Your task to perform on an android device: turn off picture-in-picture Image 0: 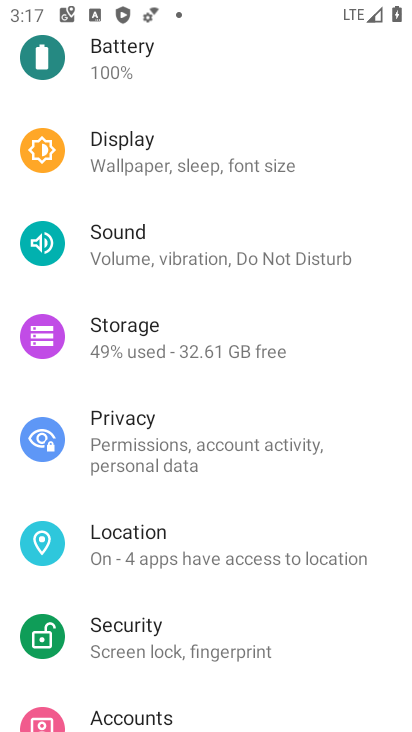
Step 0: press back button
Your task to perform on an android device: turn off picture-in-picture Image 1: 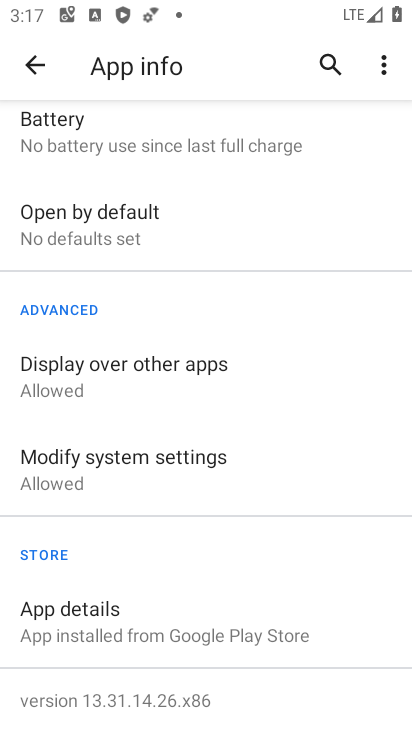
Step 1: press back button
Your task to perform on an android device: turn off picture-in-picture Image 2: 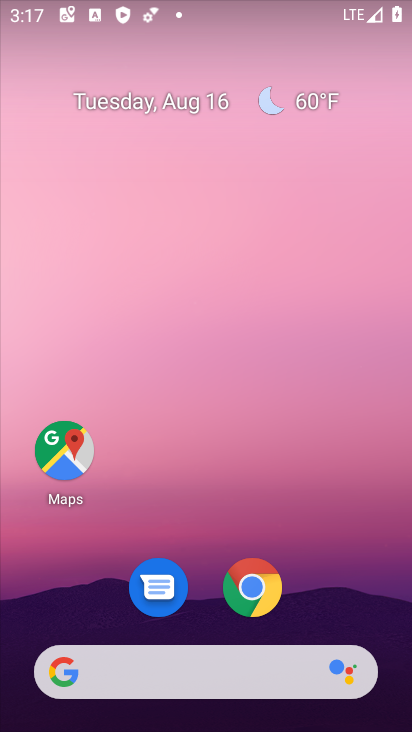
Step 2: drag from (74, 613) to (180, 105)
Your task to perform on an android device: turn off picture-in-picture Image 3: 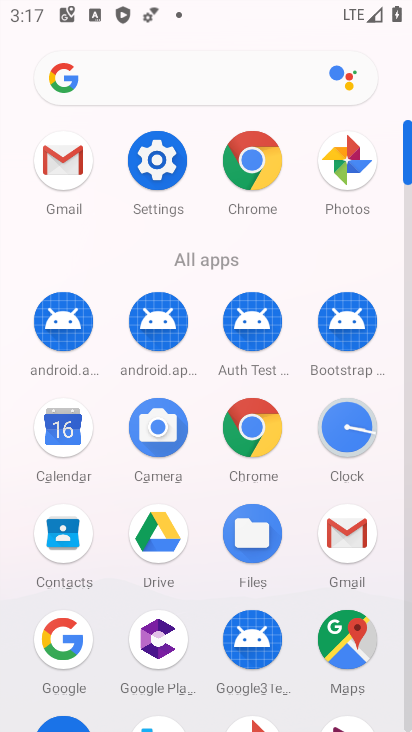
Step 3: click (158, 147)
Your task to perform on an android device: turn off picture-in-picture Image 4: 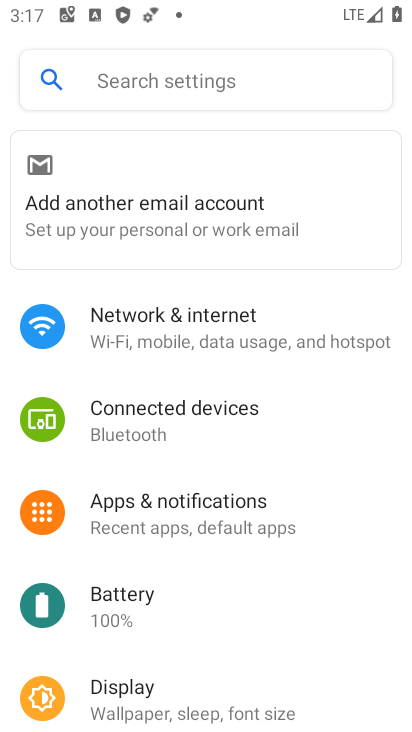
Step 4: drag from (177, 666) to (271, 197)
Your task to perform on an android device: turn off picture-in-picture Image 5: 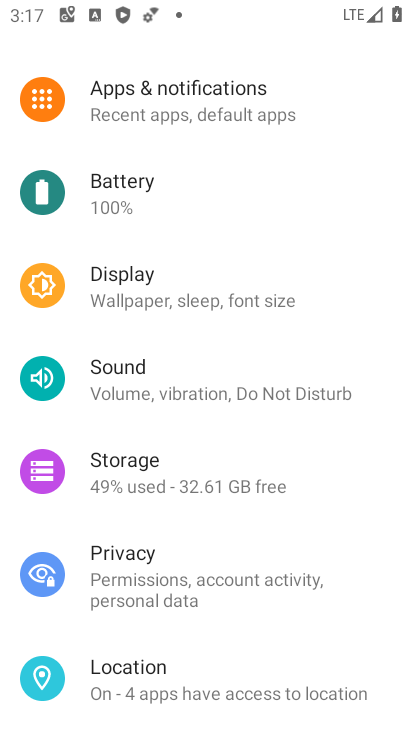
Step 5: click (225, 102)
Your task to perform on an android device: turn off picture-in-picture Image 6: 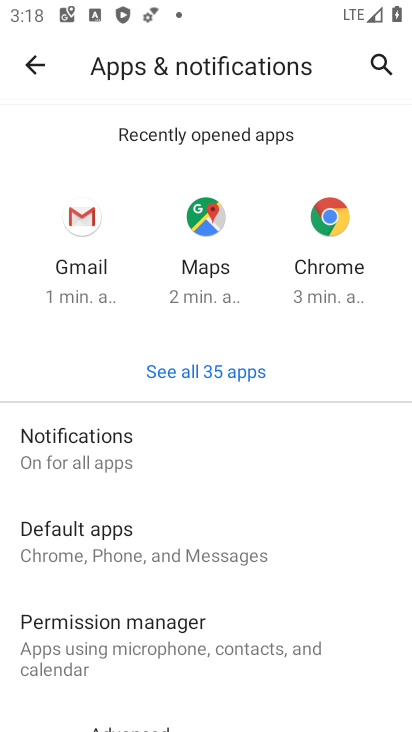
Step 6: drag from (144, 625) to (283, 101)
Your task to perform on an android device: turn off picture-in-picture Image 7: 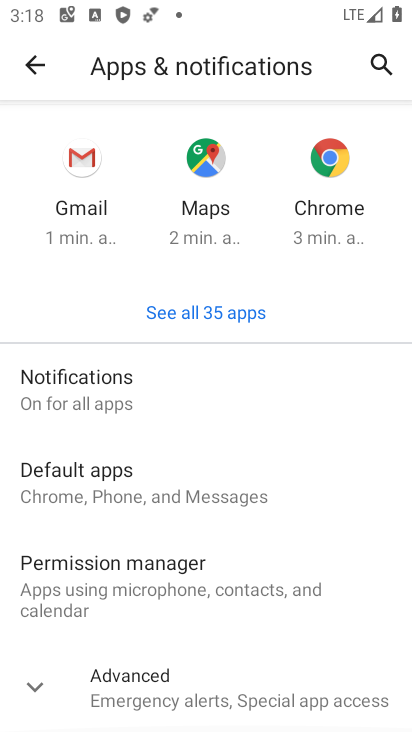
Step 7: click (217, 690)
Your task to perform on an android device: turn off picture-in-picture Image 8: 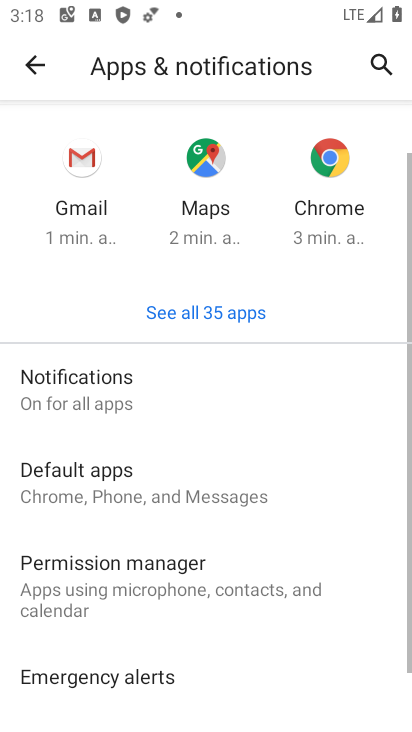
Step 8: drag from (192, 689) to (274, 212)
Your task to perform on an android device: turn off picture-in-picture Image 9: 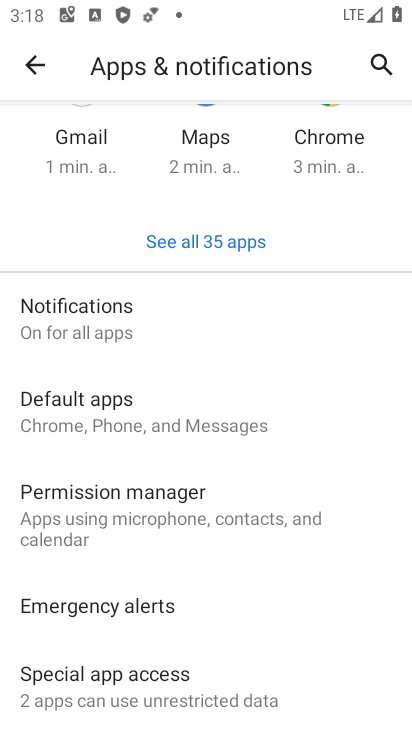
Step 9: click (124, 679)
Your task to perform on an android device: turn off picture-in-picture Image 10: 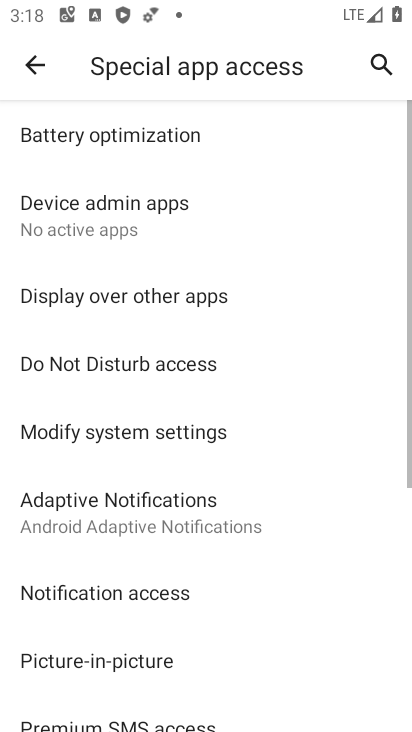
Step 10: click (117, 655)
Your task to perform on an android device: turn off picture-in-picture Image 11: 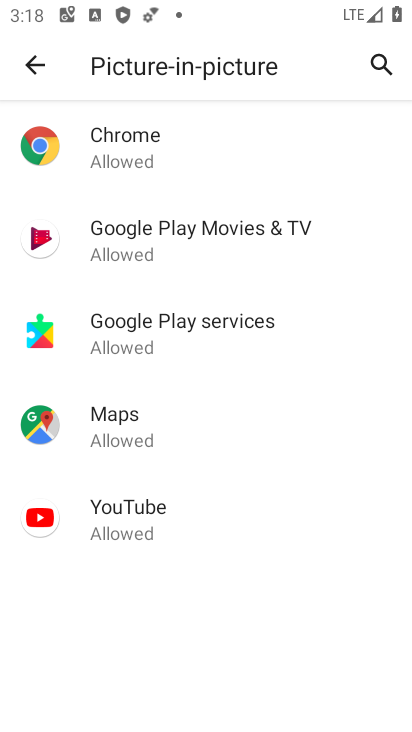
Step 11: click (130, 151)
Your task to perform on an android device: turn off picture-in-picture Image 12: 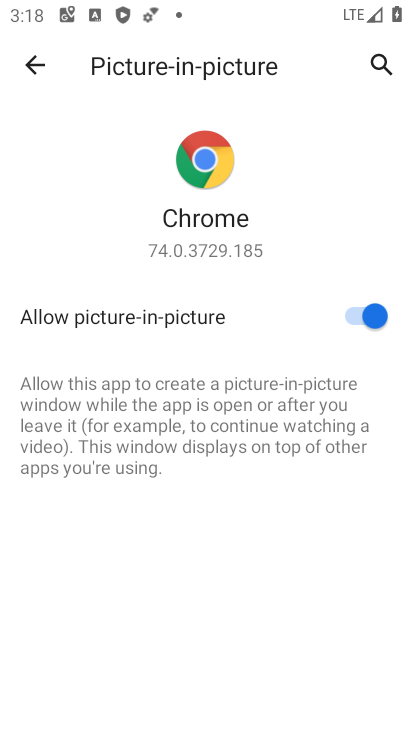
Step 12: click (376, 313)
Your task to perform on an android device: turn off picture-in-picture Image 13: 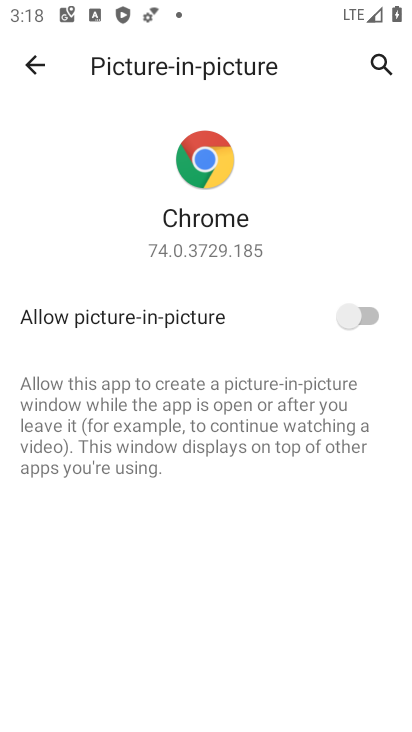
Step 13: task complete